Your task to perform on an android device: toggle airplane mode Image 0: 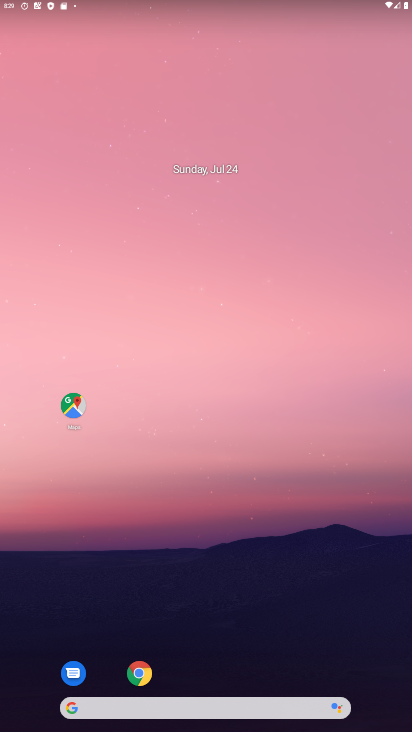
Step 0: drag from (223, 625) to (234, 228)
Your task to perform on an android device: toggle airplane mode Image 1: 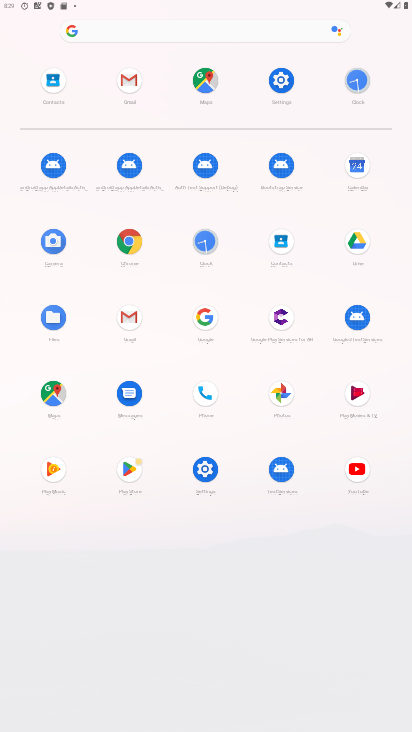
Step 1: drag from (187, 672) to (235, 50)
Your task to perform on an android device: toggle airplane mode Image 2: 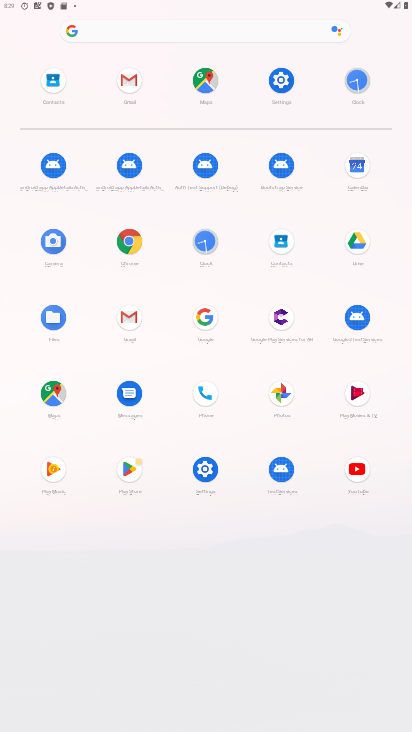
Step 2: click (203, 468)
Your task to perform on an android device: toggle airplane mode Image 3: 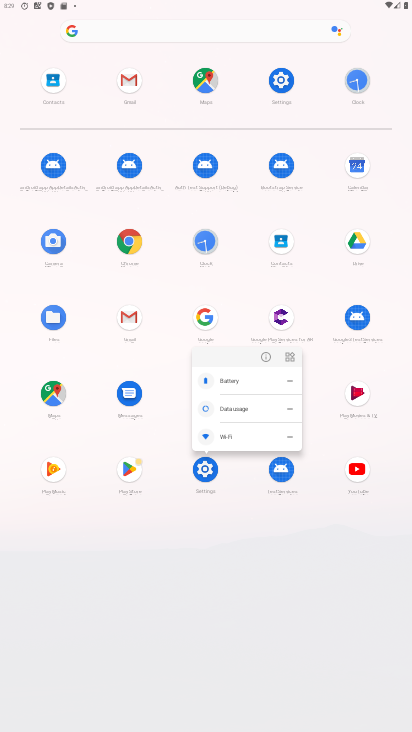
Step 3: click (210, 462)
Your task to perform on an android device: toggle airplane mode Image 4: 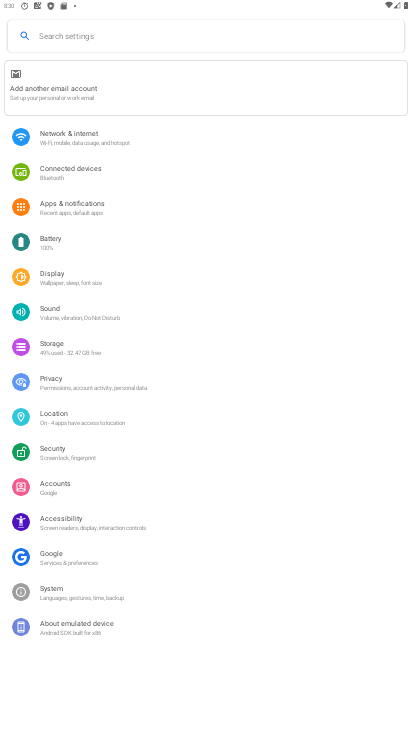
Step 4: click (261, 357)
Your task to perform on an android device: toggle airplane mode Image 5: 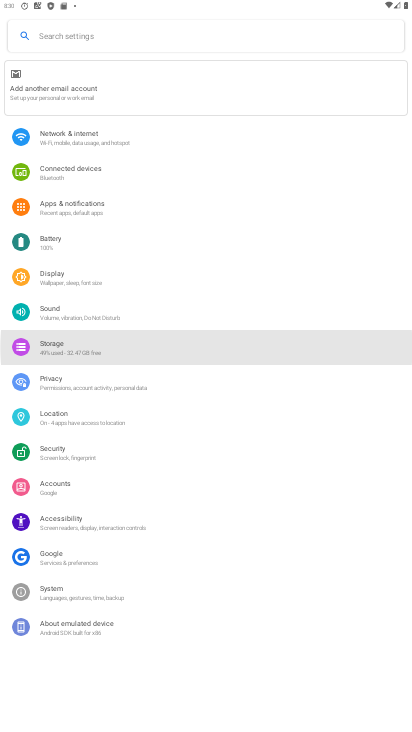
Step 5: click (261, 357)
Your task to perform on an android device: toggle airplane mode Image 6: 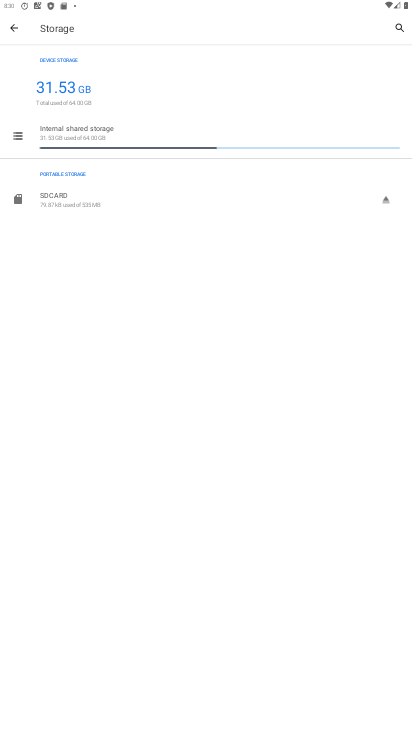
Step 6: click (256, 359)
Your task to perform on an android device: toggle airplane mode Image 7: 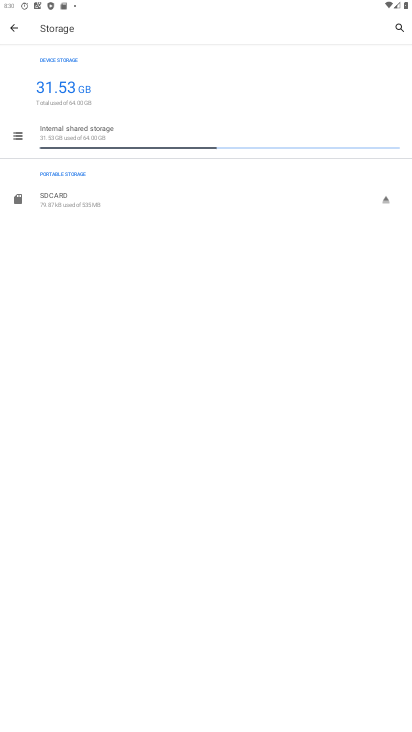
Step 7: drag from (193, 462) to (2, 140)
Your task to perform on an android device: toggle airplane mode Image 8: 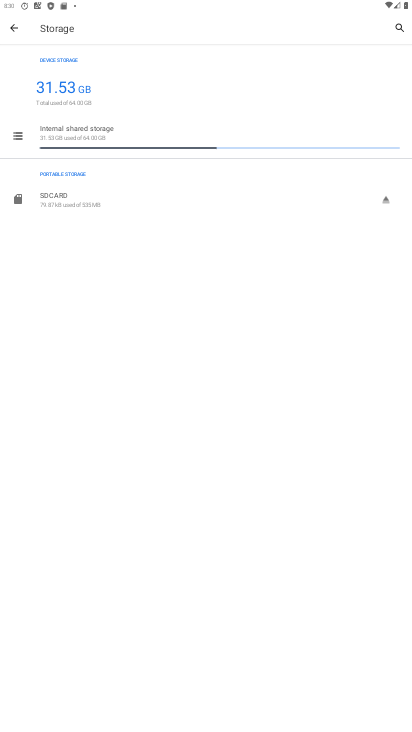
Step 8: press home button
Your task to perform on an android device: toggle airplane mode Image 9: 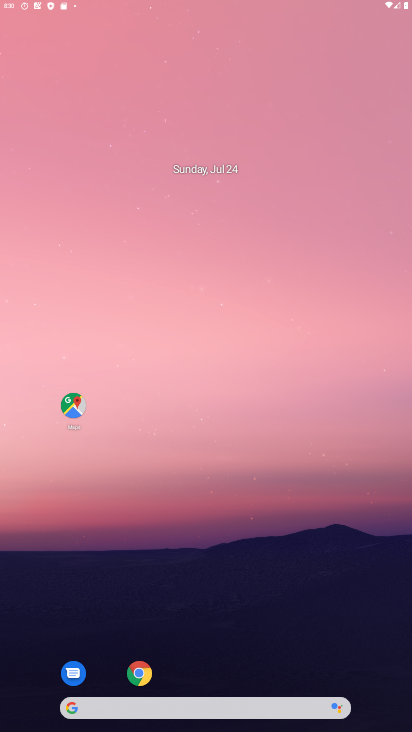
Step 9: drag from (224, 499) to (138, 271)
Your task to perform on an android device: toggle airplane mode Image 10: 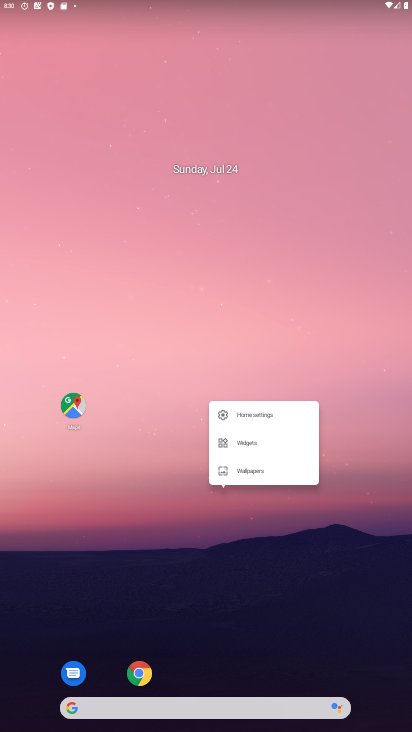
Step 10: drag from (207, 520) to (213, 372)
Your task to perform on an android device: toggle airplane mode Image 11: 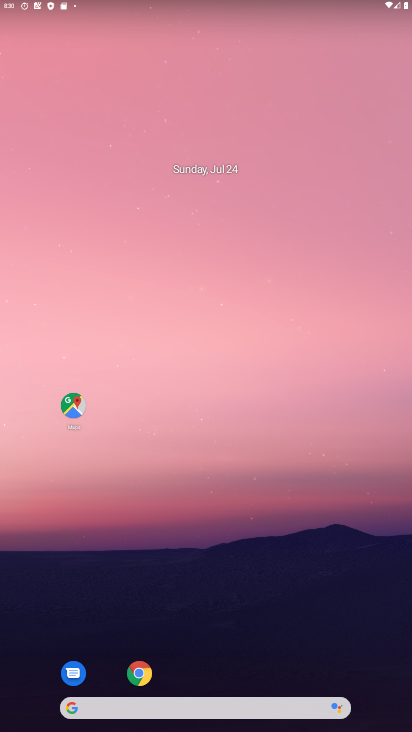
Step 11: drag from (200, 501) to (183, 207)
Your task to perform on an android device: toggle airplane mode Image 12: 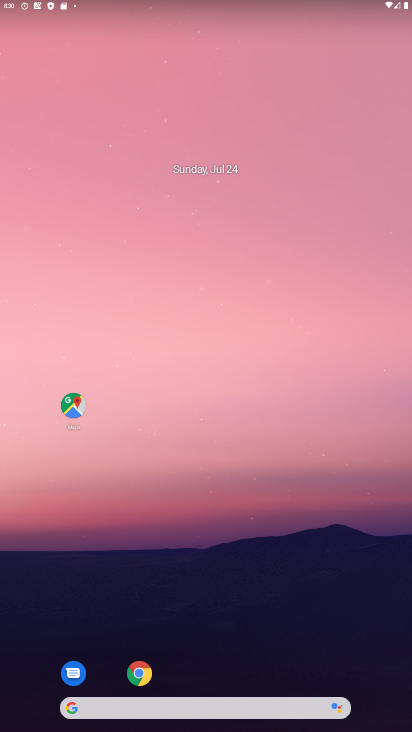
Step 12: drag from (167, 331) to (241, 109)
Your task to perform on an android device: toggle airplane mode Image 13: 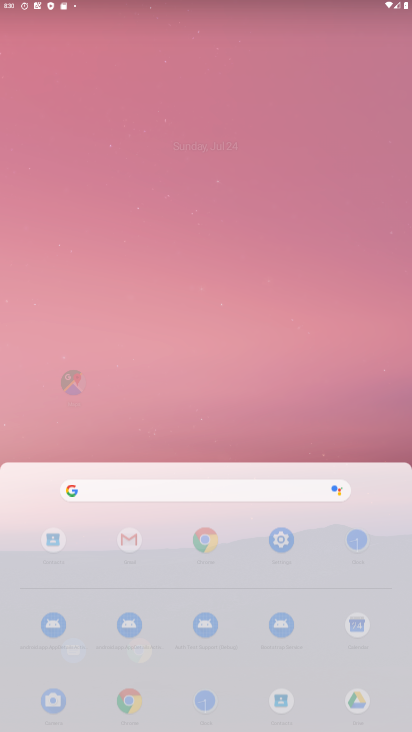
Step 13: press home button
Your task to perform on an android device: toggle airplane mode Image 14: 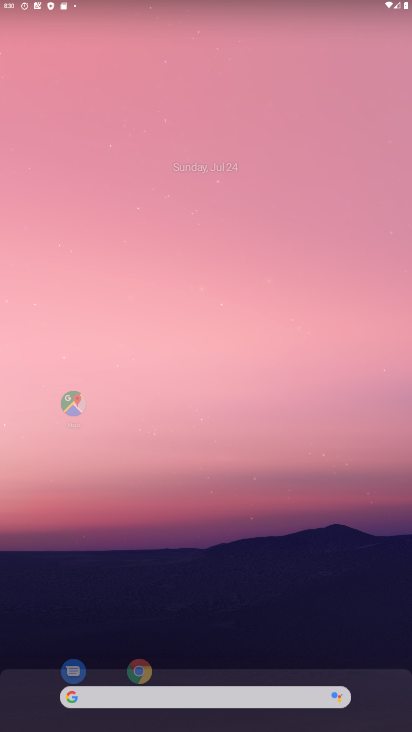
Step 14: press home button
Your task to perform on an android device: toggle airplane mode Image 15: 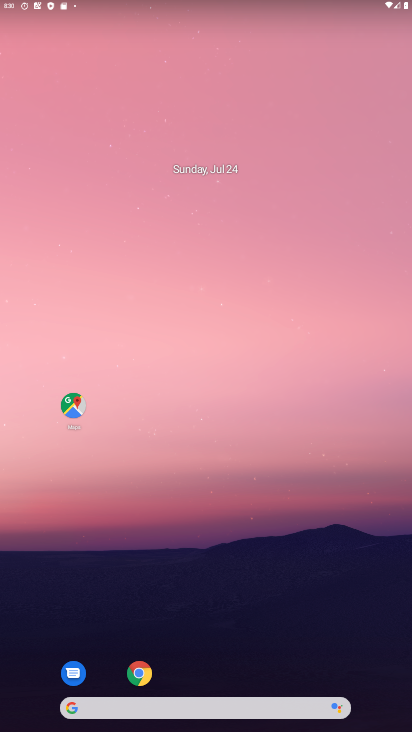
Step 15: drag from (268, 585) to (200, 16)
Your task to perform on an android device: toggle airplane mode Image 16: 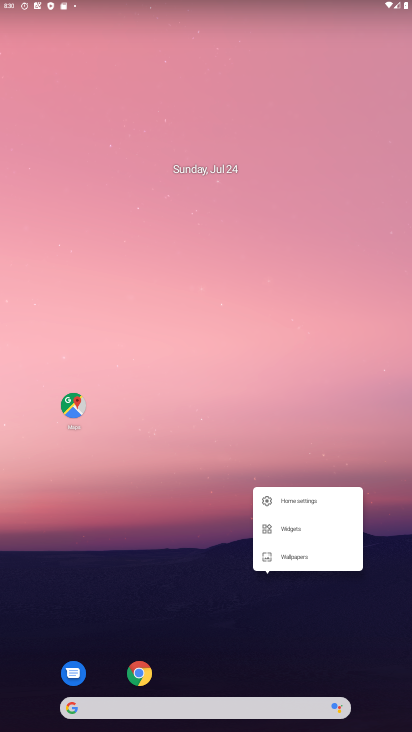
Step 16: press home button
Your task to perform on an android device: toggle airplane mode Image 17: 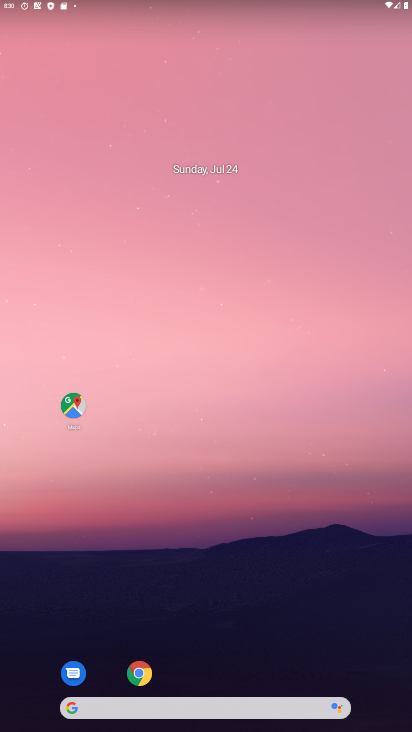
Step 17: drag from (338, 451) to (307, 54)
Your task to perform on an android device: toggle airplane mode Image 18: 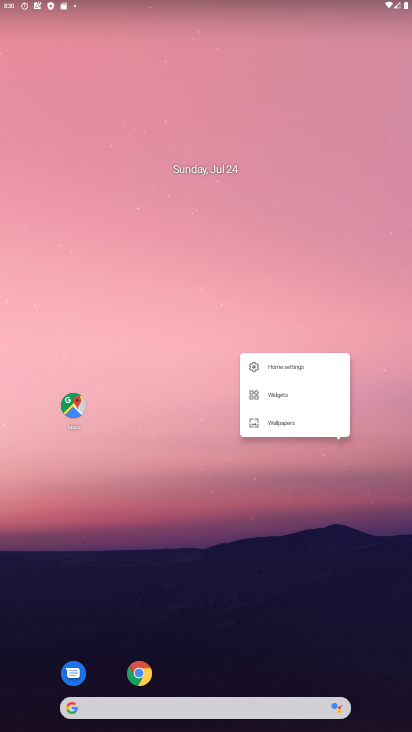
Step 18: drag from (192, 381) to (208, 61)
Your task to perform on an android device: toggle airplane mode Image 19: 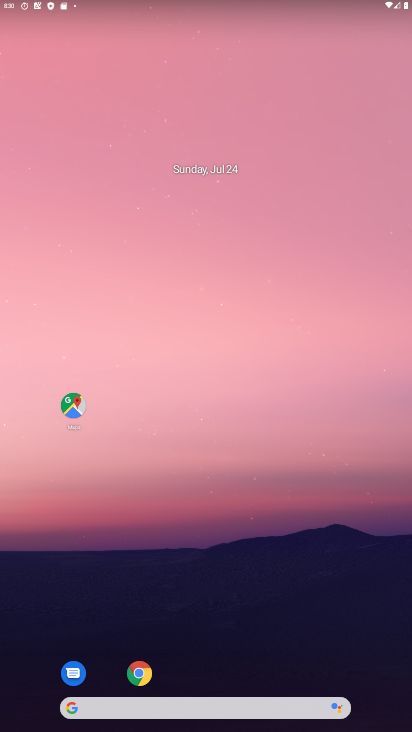
Step 19: drag from (224, 471) to (224, 71)
Your task to perform on an android device: toggle airplane mode Image 20: 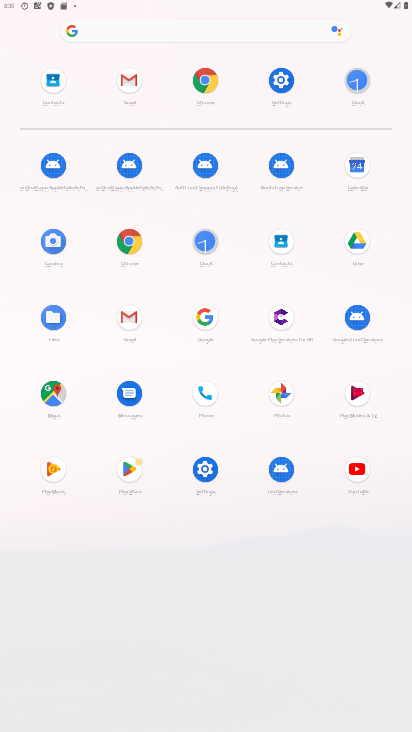
Step 20: press home button
Your task to perform on an android device: toggle airplane mode Image 21: 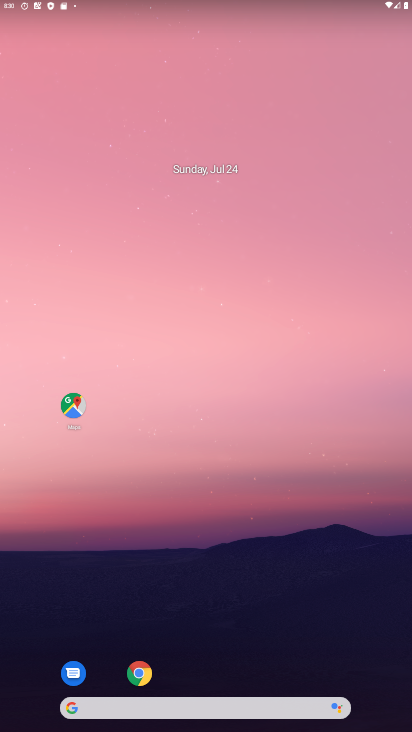
Step 21: press home button
Your task to perform on an android device: toggle airplane mode Image 22: 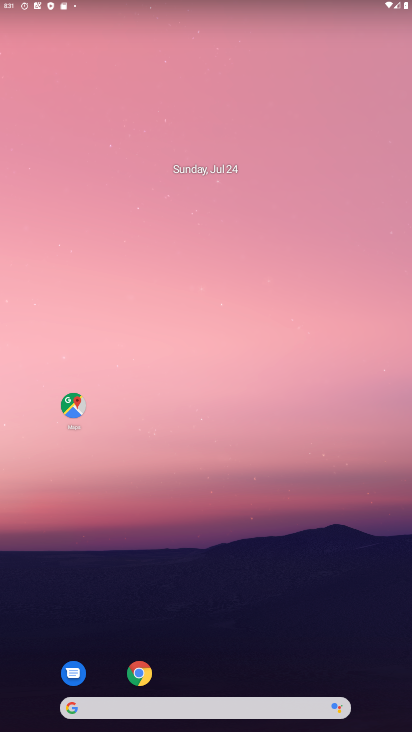
Step 22: drag from (197, 573) to (236, 113)
Your task to perform on an android device: toggle airplane mode Image 23: 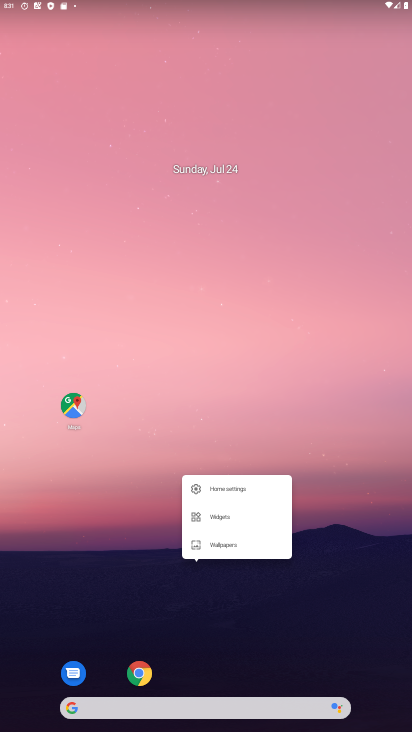
Step 23: drag from (202, 651) to (223, 194)
Your task to perform on an android device: toggle airplane mode Image 24: 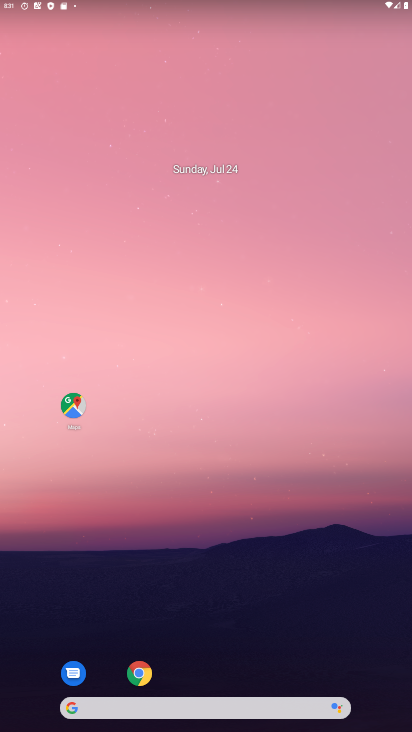
Step 24: click (205, 675)
Your task to perform on an android device: toggle airplane mode Image 25: 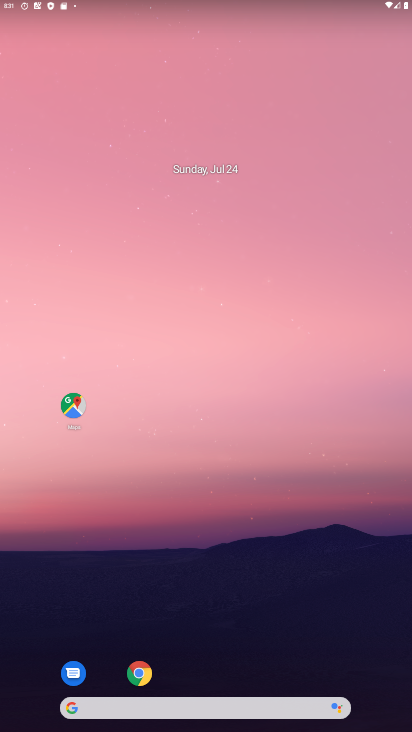
Step 25: drag from (199, 645) to (195, 90)
Your task to perform on an android device: toggle airplane mode Image 26: 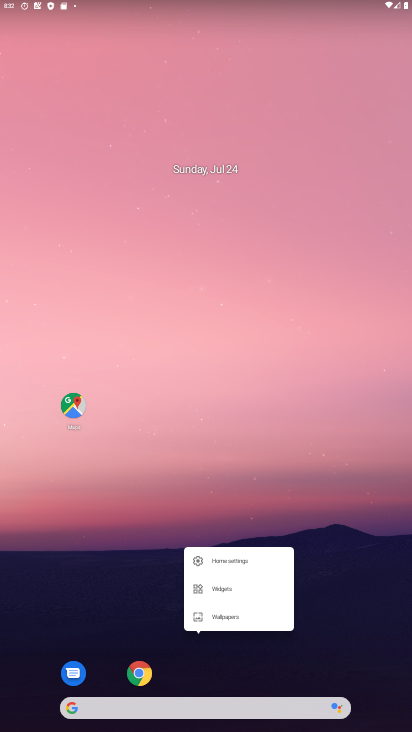
Step 26: click (224, 663)
Your task to perform on an android device: toggle airplane mode Image 27: 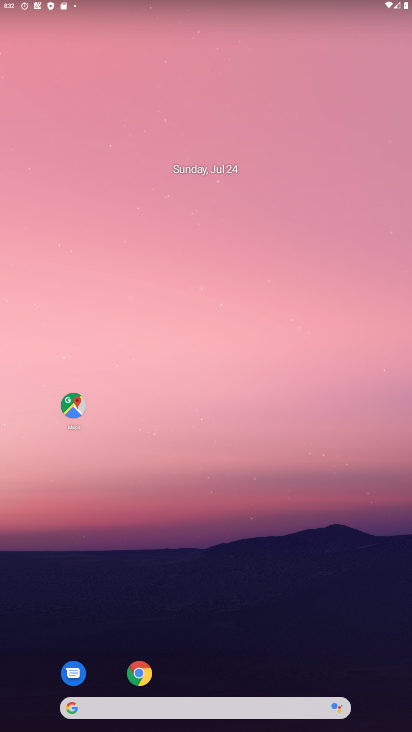
Step 27: drag from (221, 609) to (344, 0)
Your task to perform on an android device: toggle airplane mode Image 28: 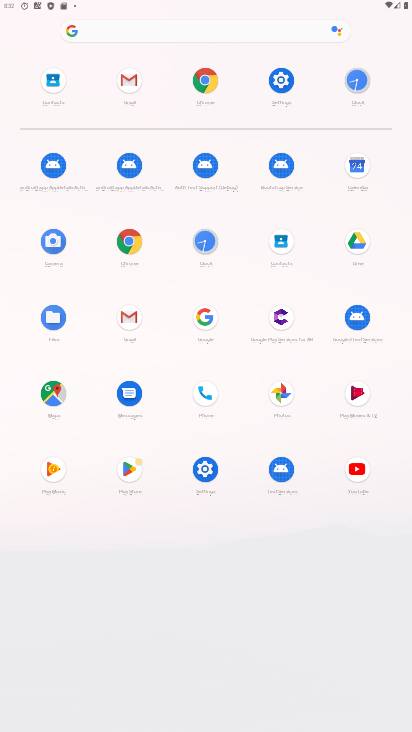
Step 28: click (285, 72)
Your task to perform on an android device: toggle airplane mode Image 29: 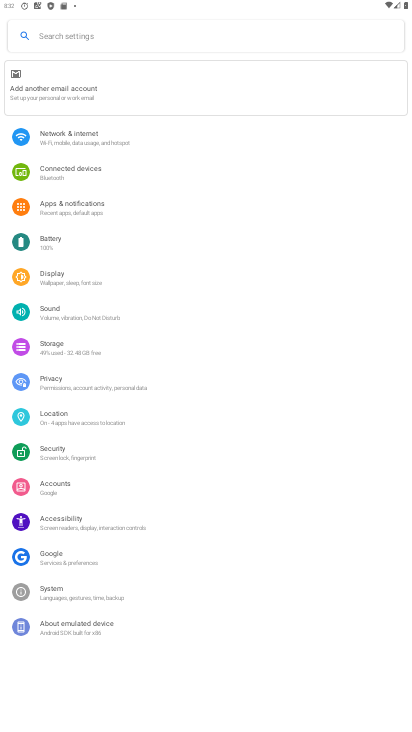
Step 29: click (113, 146)
Your task to perform on an android device: toggle airplane mode Image 30: 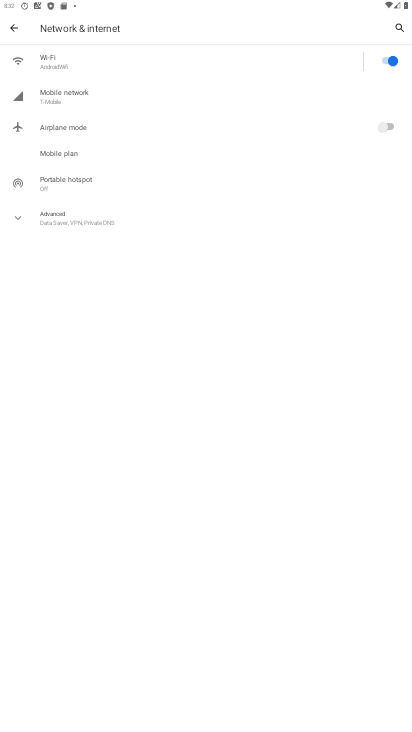
Step 30: click (87, 129)
Your task to perform on an android device: toggle airplane mode Image 31: 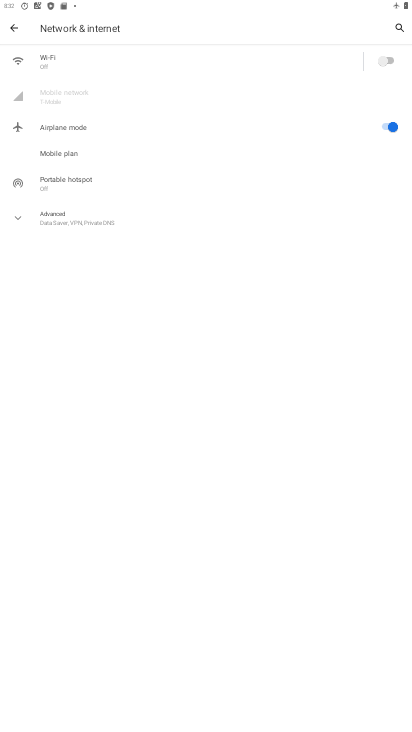
Step 31: task complete